Your task to perform on an android device: turn on data saver in the chrome app Image 0: 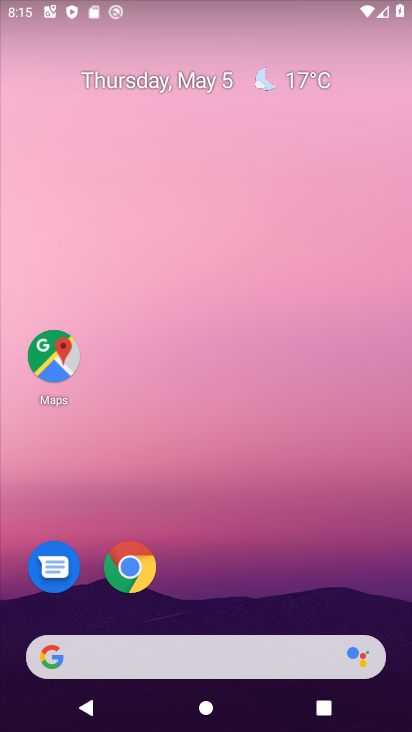
Step 0: click (136, 568)
Your task to perform on an android device: turn on data saver in the chrome app Image 1: 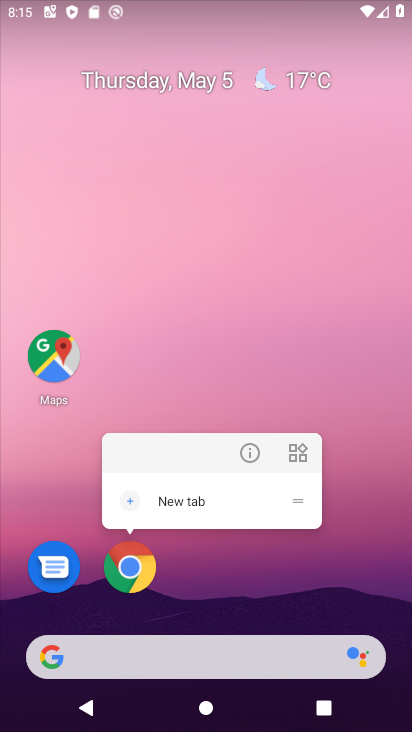
Step 1: click (182, 570)
Your task to perform on an android device: turn on data saver in the chrome app Image 2: 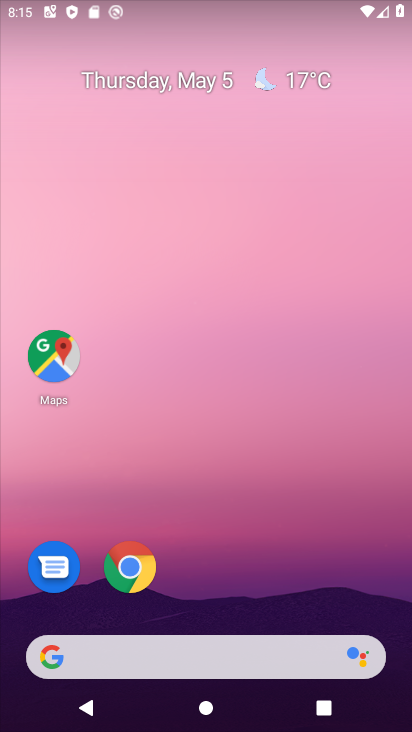
Step 2: drag from (225, 569) to (244, 22)
Your task to perform on an android device: turn on data saver in the chrome app Image 3: 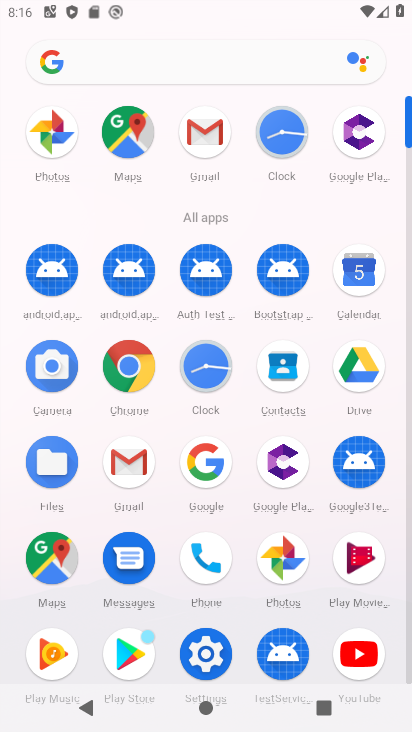
Step 3: click (131, 365)
Your task to perform on an android device: turn on data saver in the chrome app Image 4: 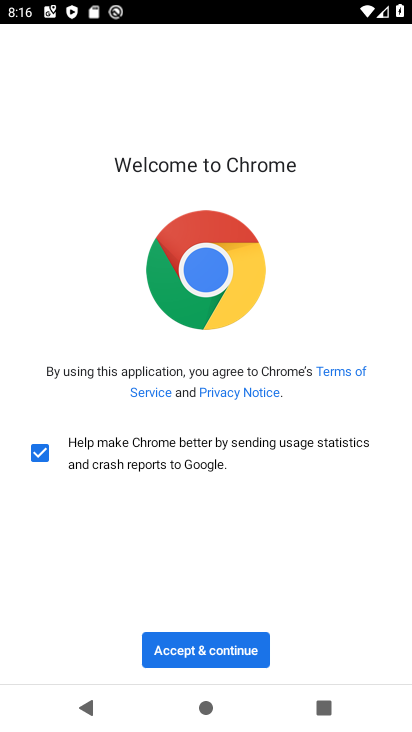
Step 4: click (223, 651)
Your task to perform on an android device: turn on data saver in the chrome app Image 5: 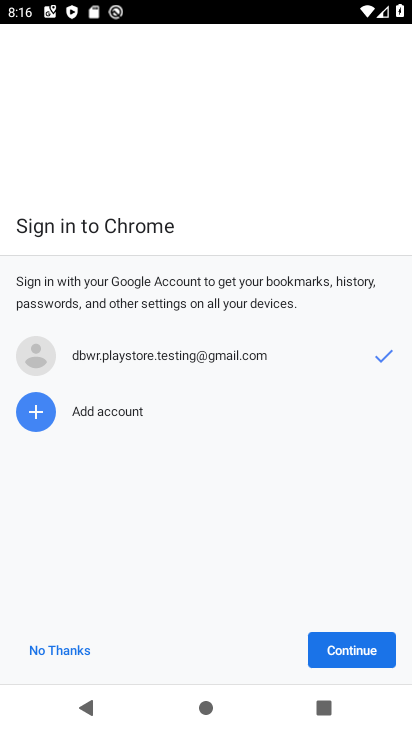
Step 5: click (348, 645)
Your task to perform on an android device: turn on data saver in the chrome app Image 6: 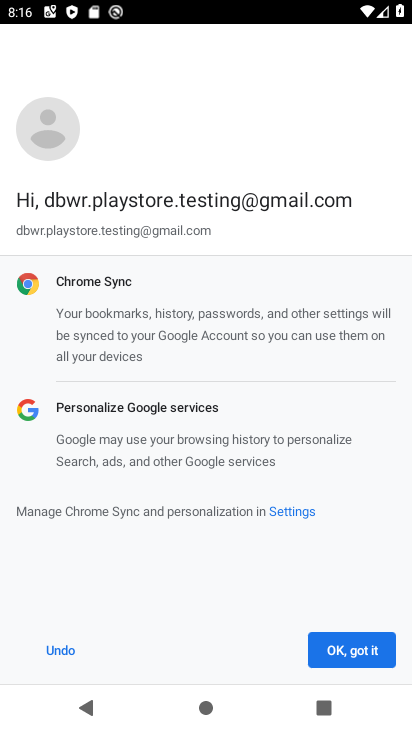
Step 6: click (348, 645)
Your task to perform on an android device: turn on data saver in the chrome app Image 7: 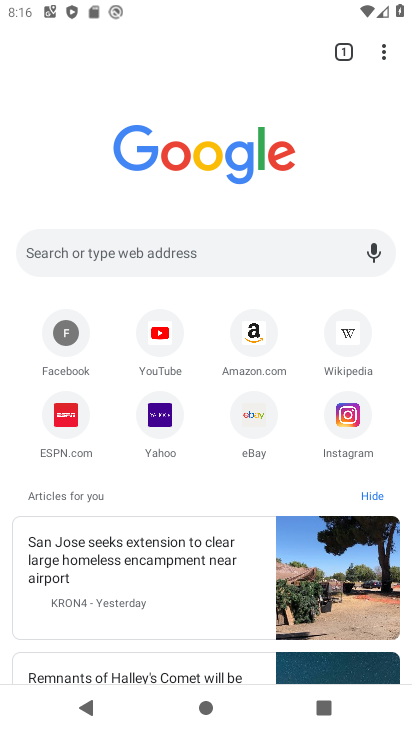
Step 7: click (378, 49)
Your task to perform on an android device: turn on data saver in the chrome app Image 8: 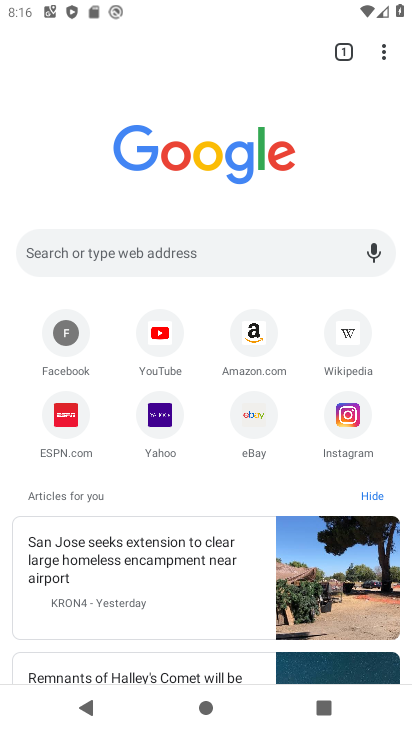
Step 8: drag from (378, 47) to (248, 419)
Your task to perform on an android device: turn on data saver in the chrome app Image 9: 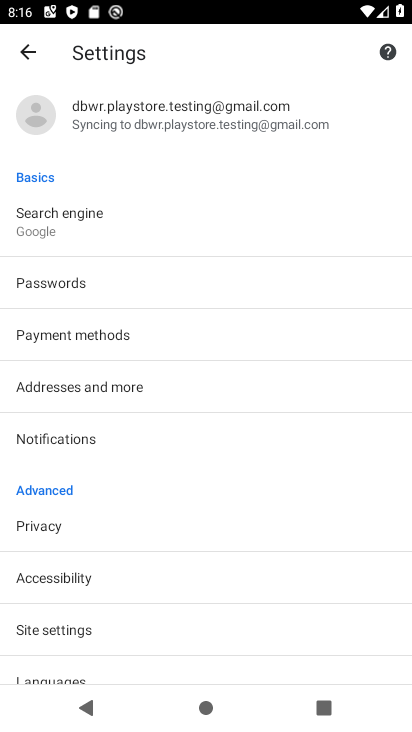
Step 9: drag from (214, 559) to (231, 321)
Your task to perform on an android device: turn on data saver in the chrome app Image 10: 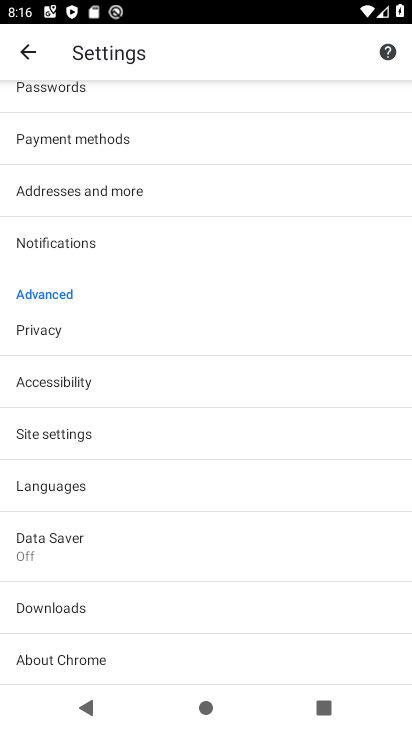
Step 10: click (154, 566)
Your task to perform on an android device: turn on data saver in the chrome app Image 11: 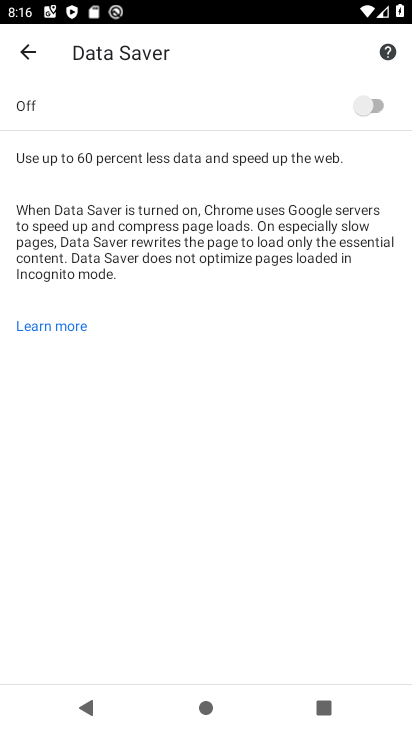
Step 11: click (369, 100)
Your task to perform on an android device: turn on data saver in the chrome app Image 12: 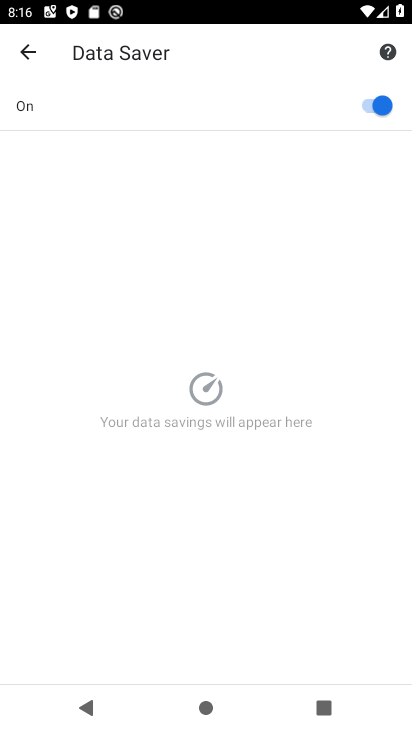
Step 12: task complete